Your task to perform on an android device: toggle translation in the chrome app Image 0: 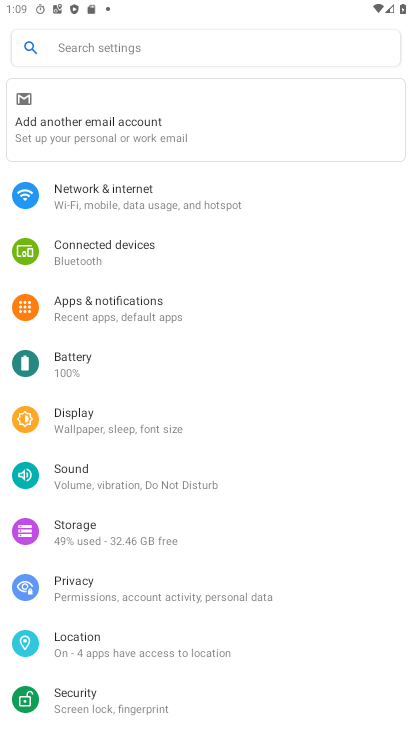
Step 0: press home button
Your task to perform on an android device: toggle translation in the chrome app Image 1: 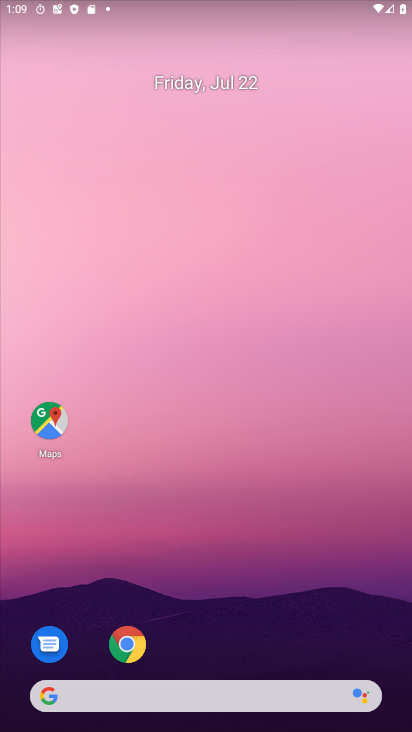
Step 1: drag from (233, 709) to (218, 174)
Your task to perform on an android device: toggle translation in the chrome app Image 2: 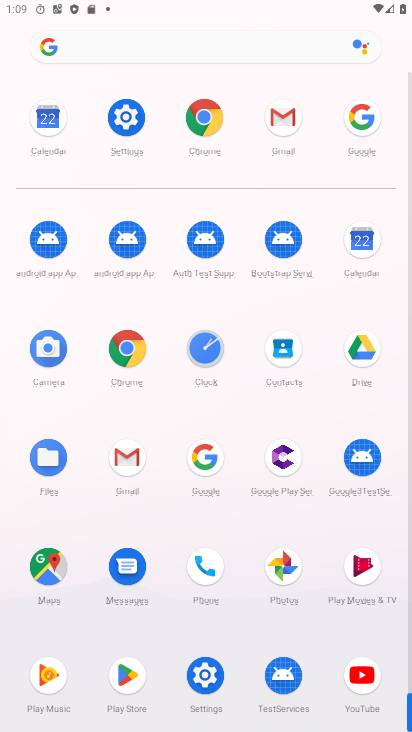
Step 2: press home button
Your task to perform on an android device: toggle translation in the chrome app Image 3: 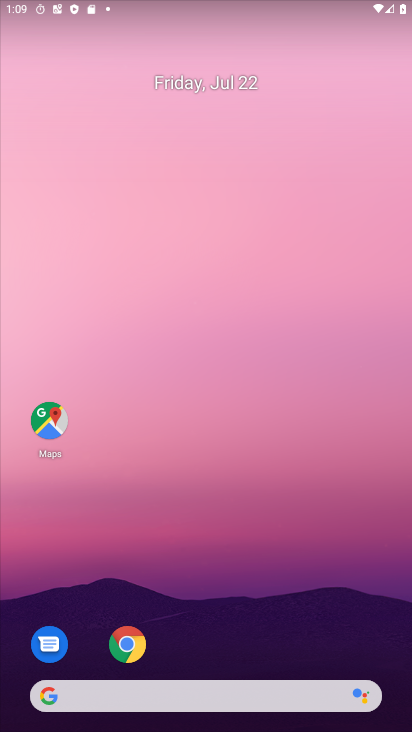
Step 3: drag from (289, 727) to (242, 0)
Your task to perform on an android device: toggle translation in the chrome app Image 4: 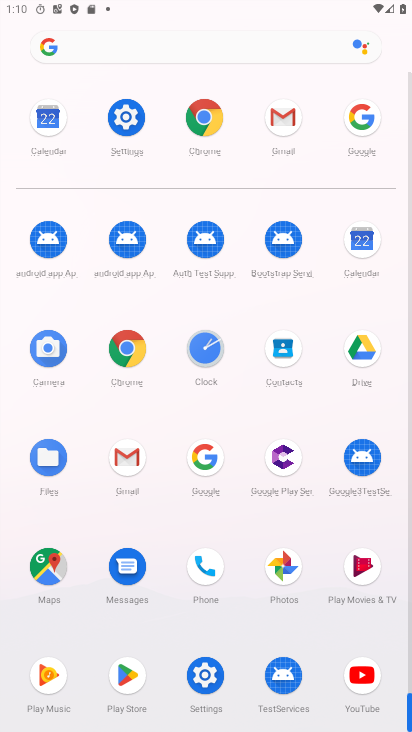
Step 4: click (211, 119)
Your task to perform on an android device: toggle translation in the chrome app Image 5: 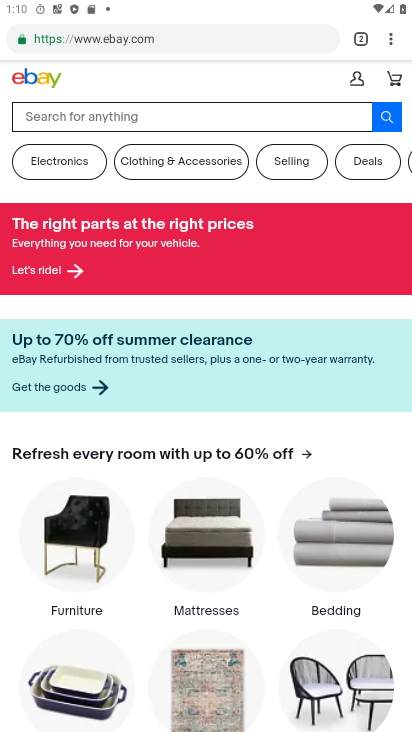
Step 5: click (388, 40)
Your task to perform on an android device: toggle translation in the chrome app Image 6: 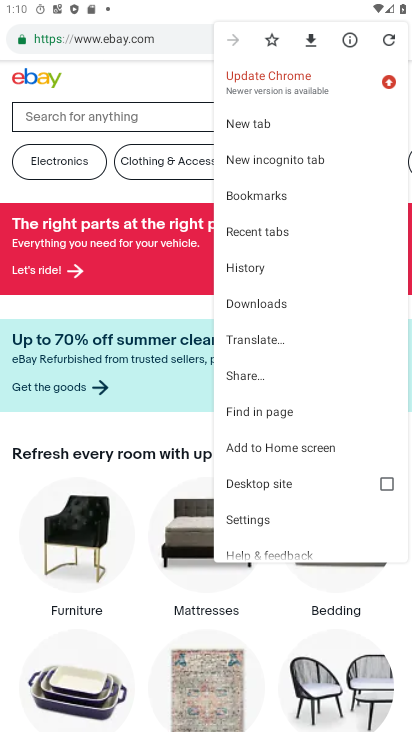
Step 6: click (290, 341)
Your task to perform on an android device: toggle translation in the chrome app Image 7: 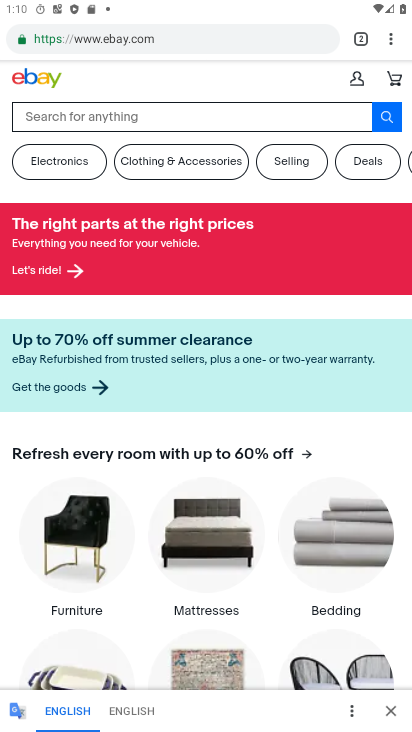
Step 7: click (359, 717)
Your task to perform on an android device: toggle translation in the chrome app Image 8: 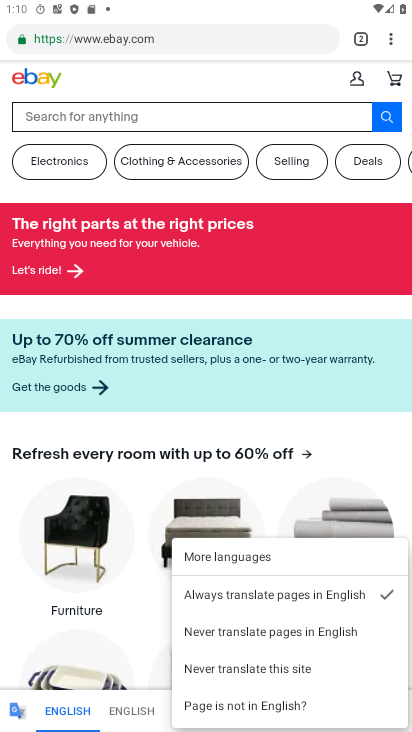
Step 8: click (275, 666)
Your task to perform on an android device: toggle translation in the chrome app Image 9: 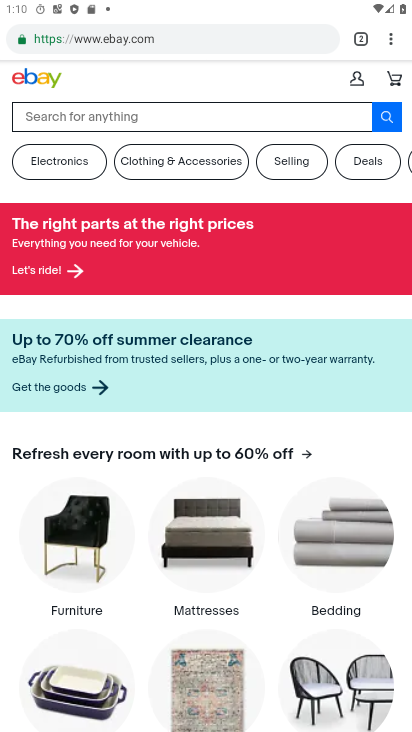
Step 9: task complete